Your task to perform on an android device: see creations saved in the google photos Image 0: 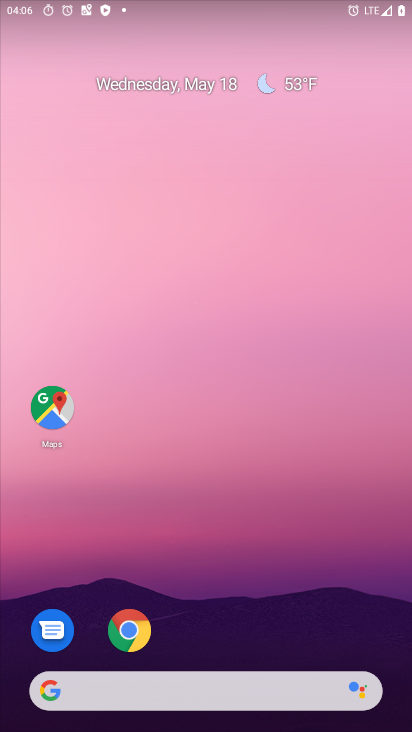
Step 0: drag from (254, 727) to (271, 368)
Your task to perform on an android device: see creations saved in the google photos Image 1: 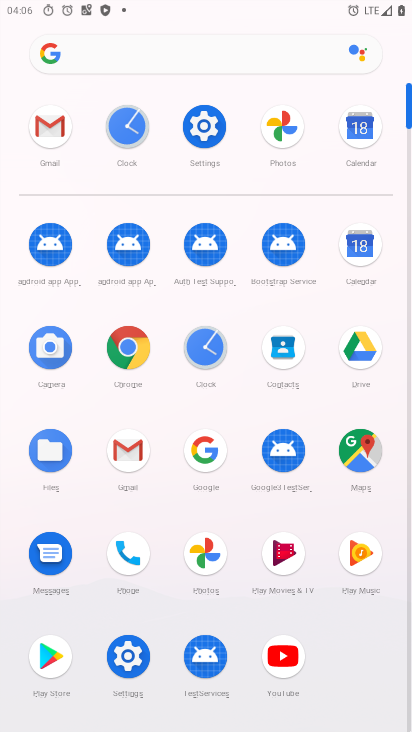
Step 1: click (209, 552)
Your task to perform on an android device: see creations saved in the google photos Image 2: 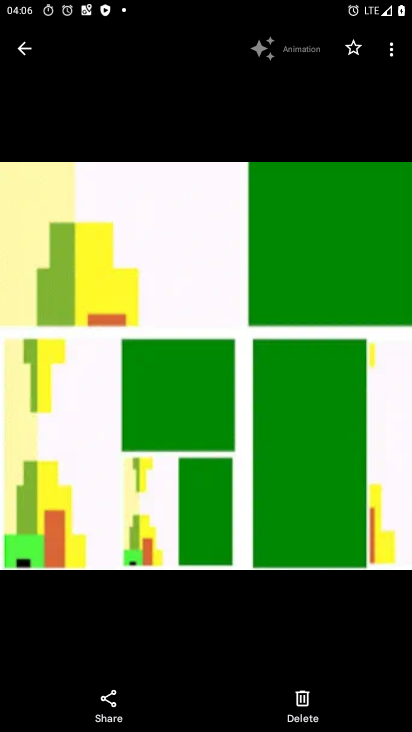
Step 2: click (19, 51)
Your task to perform on an android device: see creations saved in the google photos Image 3: 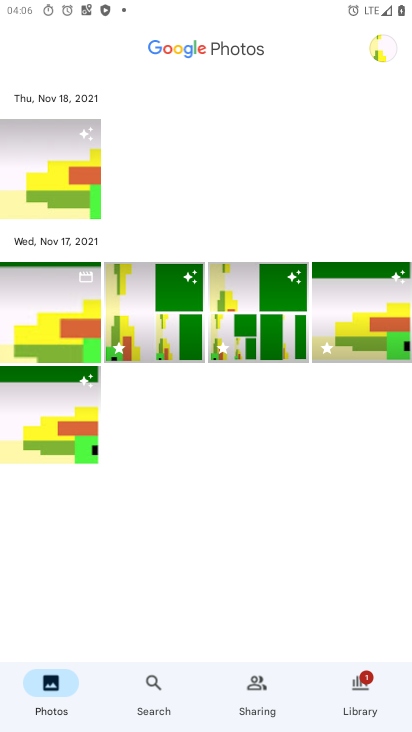
Step 3: click (156, 682)
Your task to perform on an android device: see creations saved in the google photos Image 4: 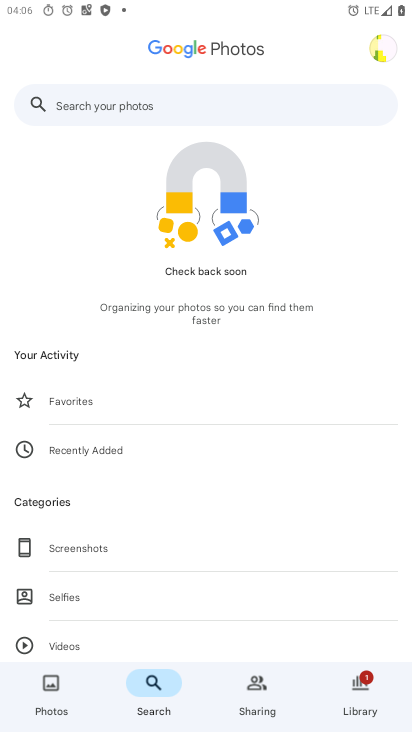
Step 4: drag from (115, 610) to (148, 328)
Your task to perform on an android device: see creations saved in the google photos Image 5: 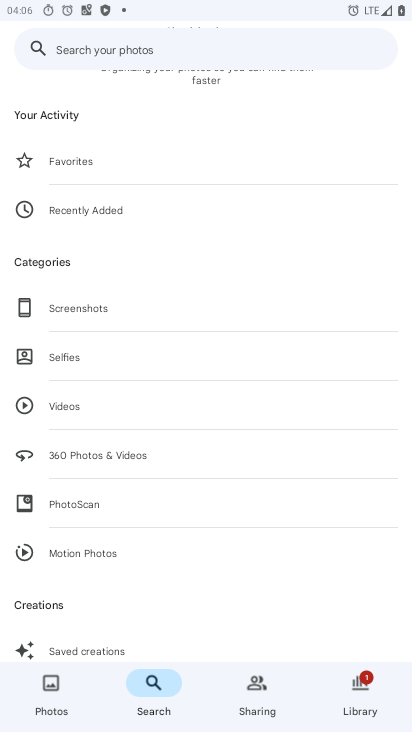
Step 5: drag from (77, 590) to (96, 367)
Your task to perform on an android device: see creations saved in the google photos Image 6: 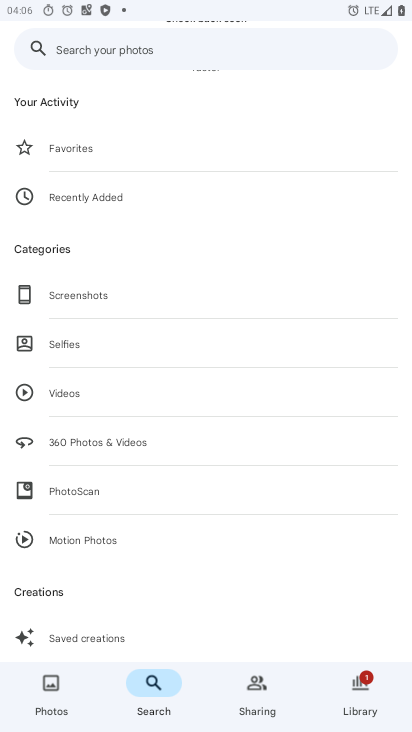
Step 6: click (90, 638)
Your task to perform on an android device: see creations saved in the google photos Image 7: 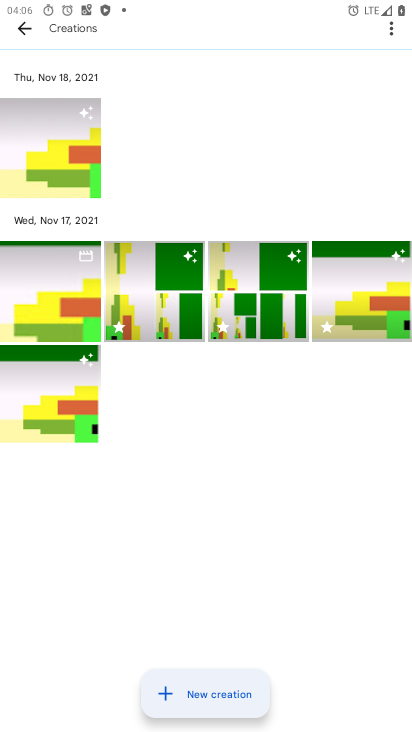
Step 7: task complete